Your task to perform on an android device: toggle show notifications on the lock screen Image 0: 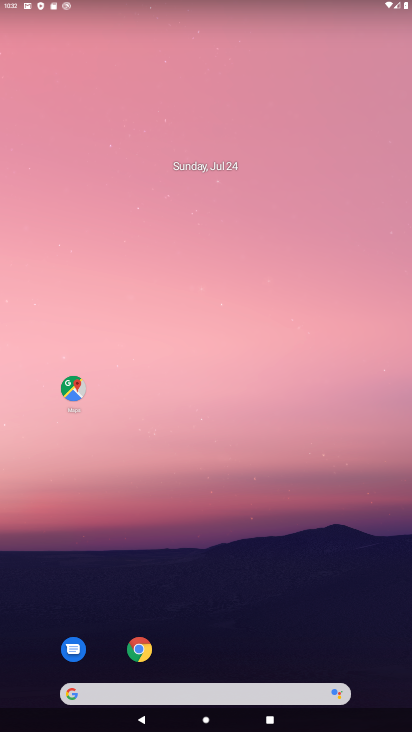
Step 0: drag from (266, 642) to (231, 7)
Your task to perform on an android device: toggle show notifications on the lock screen Image 1: 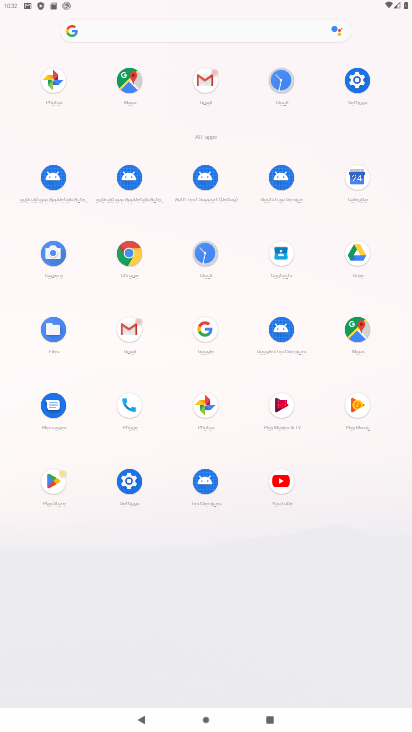
Step 1: click (125, 478)
Your task to perform on an android device: toggle show notifications on the lock screen Image 2: 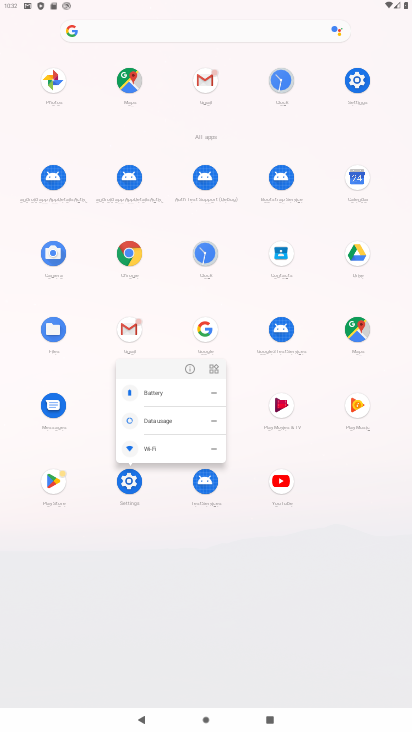
Step 2: click (125, 478)
Your task to perform on an android device: toggle show notifications on the lock screen Image 3: 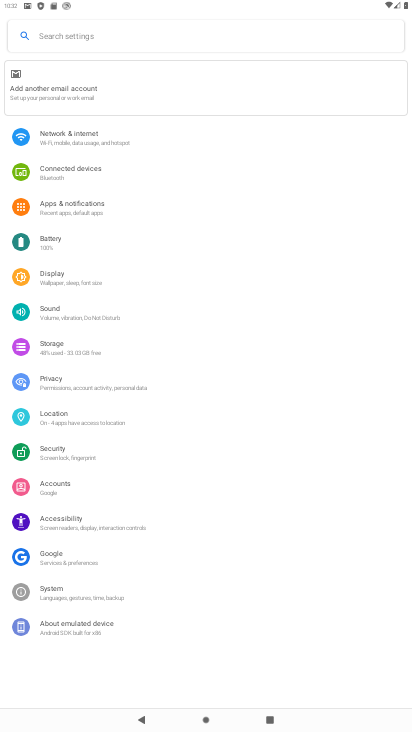
Step 3: click (90, 207)
Your task to perform on an android device: toggle show notifications on the lock screen Image 4: 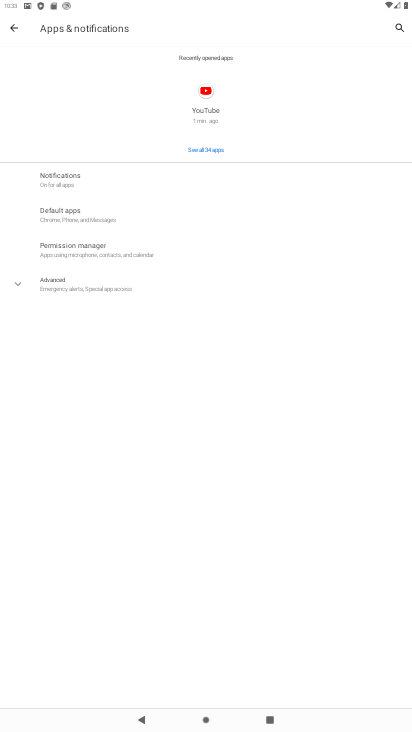
Step 4: click (114, 178)
Your task to perform on an android device: toggle show notifications on the lock screen Image 5: 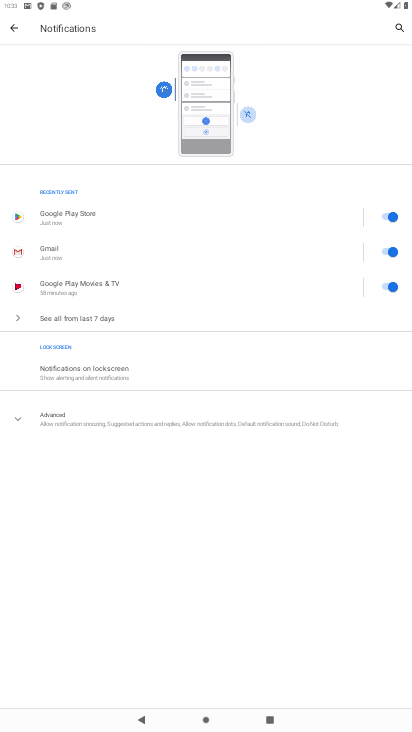
Step 5: click (64, 369)
Your task to perform on an android device: toggle show notifications on the lock screen Image 6: 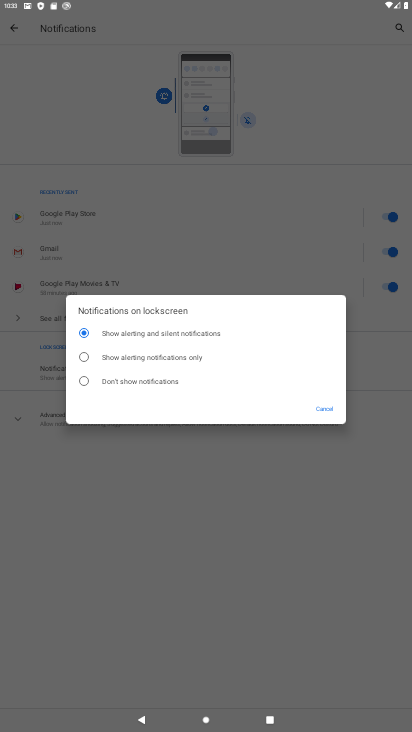
Step 6: click (93, 357)
Your task to perform on an android device: toggle show notifications on the lock screen Image 7: 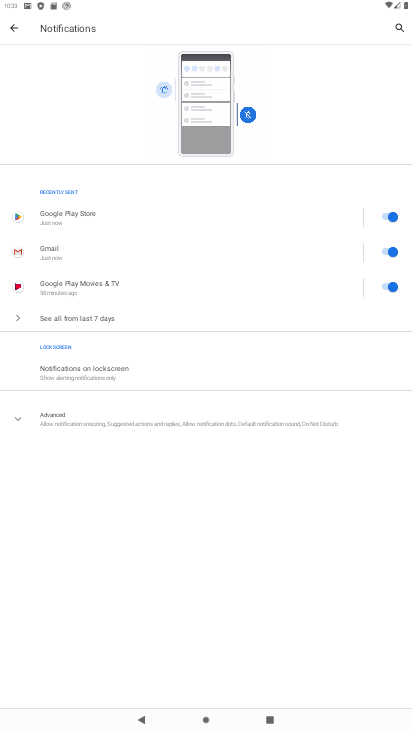
Step 7: task complete